Your task to perform on an android device: Open Google Maps and go to "Timeline" Image 0: 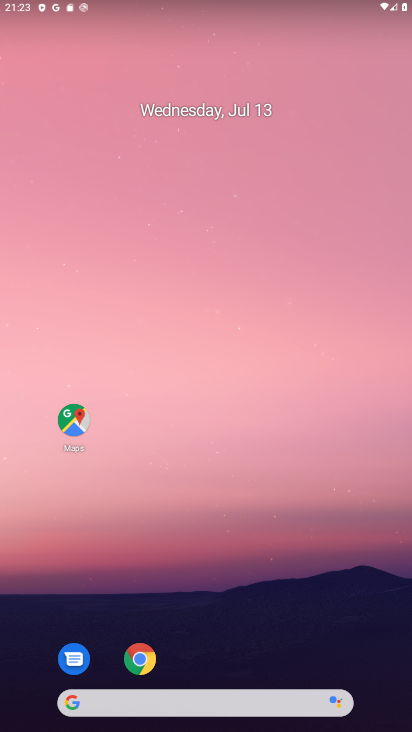
Step 0: drag from (276, 503) to (249, 272)
Your task to perform on an android device: Open Google Maps and go to "Timeline" Image 1: 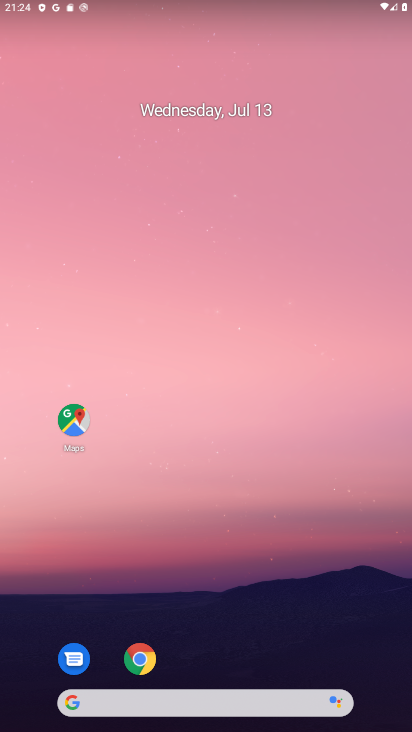
Step 1: drag from (294, 681) to (268, 197)
Your task to perform on an android device: Open Google Maps and go to "Timeline" Image 2: 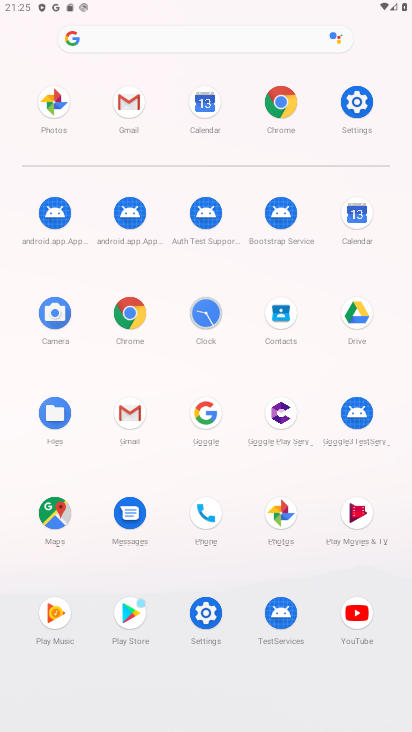
Step 2: click (46, 512)
Your task to perform on an android device: Open Google Maps and go to "Timeline" Image 3: 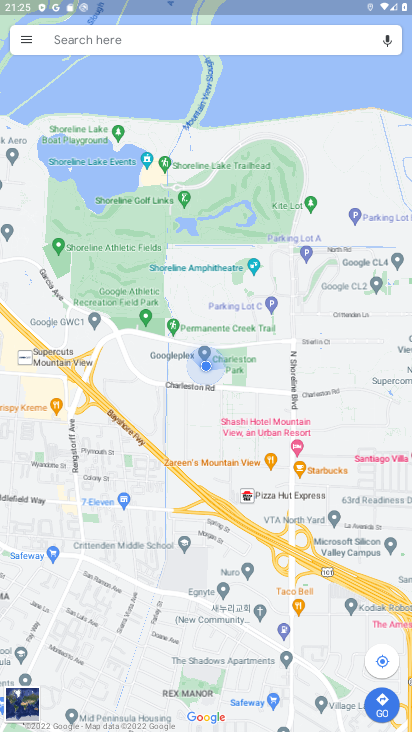
Step 3: click (17, 38)
Your task to perform on an android device: Open Google Maps and go to "Timeline" Image 4: 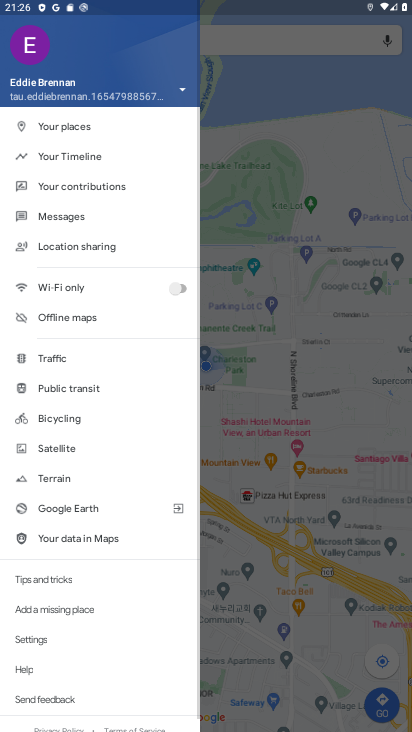
Step 4: click (85, 163)
Your task to perform on an android device: Open Google Maps and go to "Timeline" Image 5: 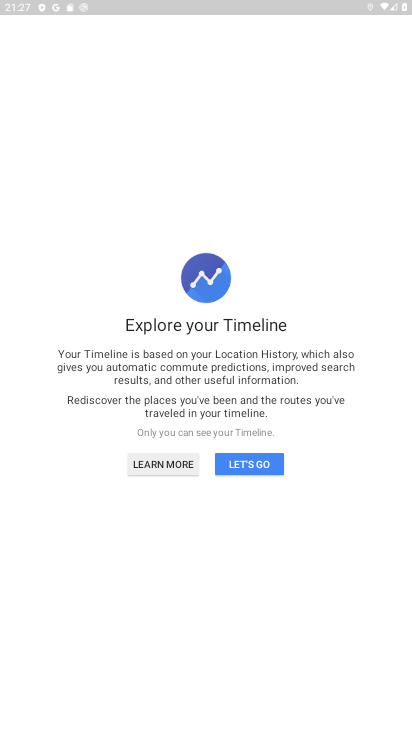
Step 5: click (247, 459)
Your task to perform on an android device: Open Google Maps and go to "Timeline" Image 6: 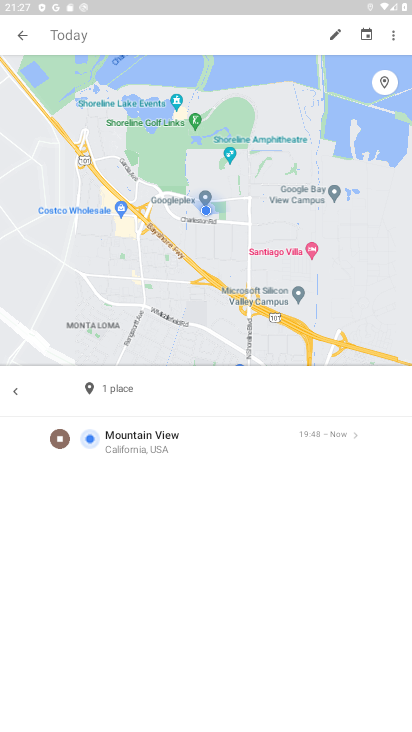
Step 6: task complete